Your task to perform on an android device: Open settings on Google Maps Image 0: 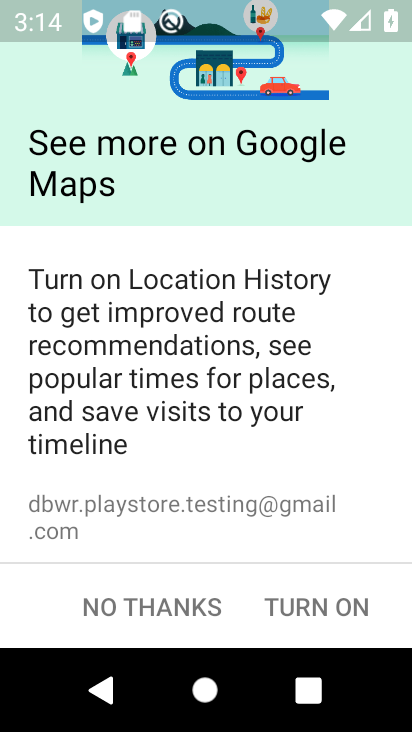
Step 0: task complete